Your task to perform on an android device: Search for seafood restaurants on Google Maps Image 0: 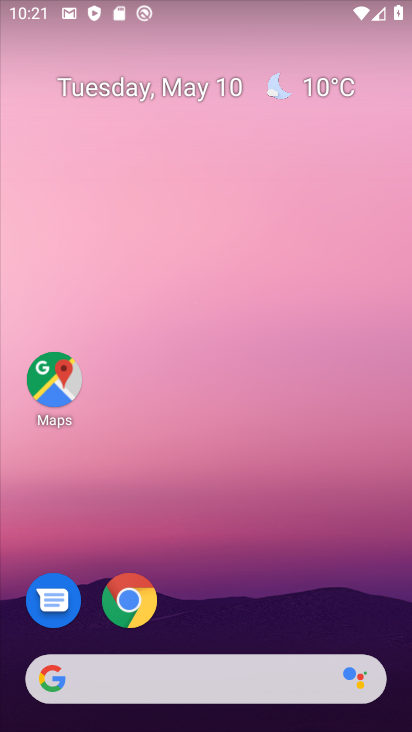
Step 0: drag from (230, 544) to (231, 5)
Your task to perform on an android device: Search for seafood restaurants on Google Maps Image 1: 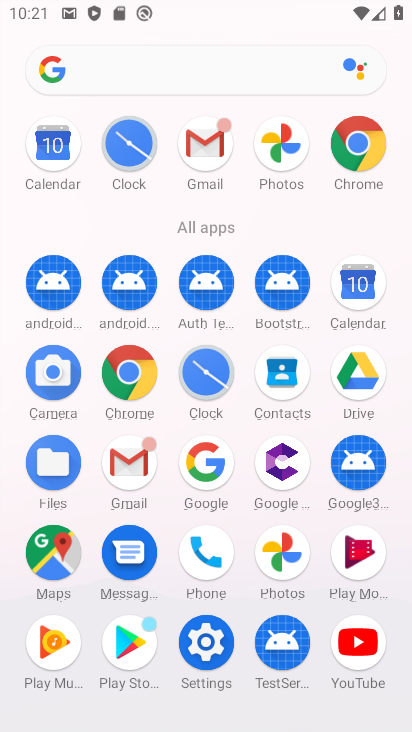
Step 1: click (50, 549)
Your task to perform on an android device: Search for seafood restaurants on Google Maps Image 2: 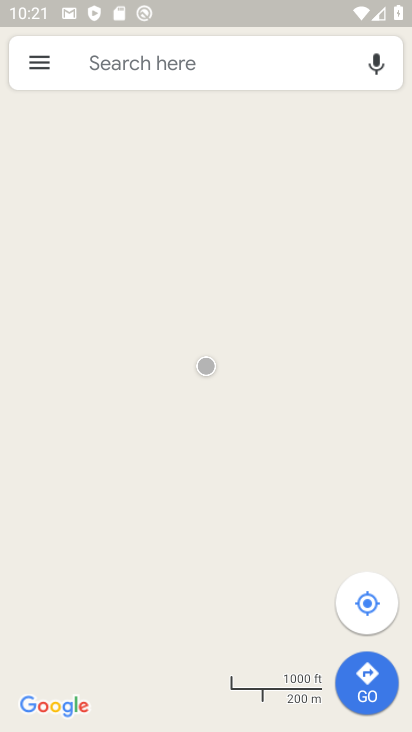
Step 2: click (224, 51)
Your task to perform on an android device: Search for seafood restaurants on Google Maps Image 3: 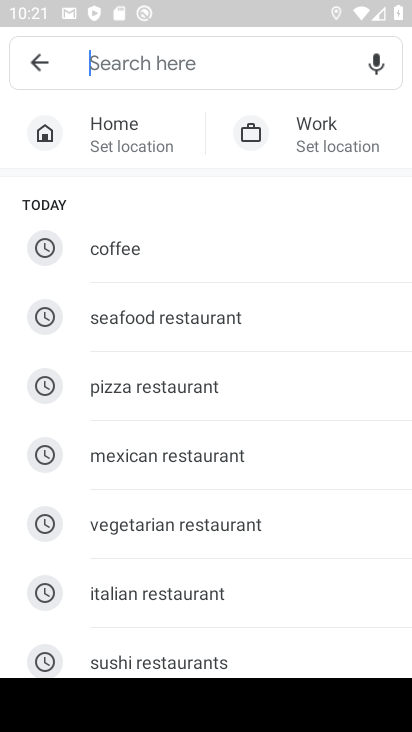
Step 3: type "seafood restaurants"
Your task to perform on an android device: Search for seafood restaurants on Google Maps Image 4: 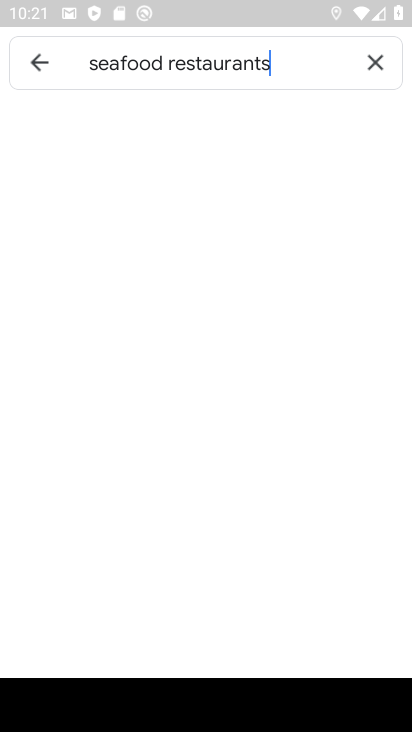
Step 4: type ""
Your task to perform on an android device: Search for seafood restaurants on Google Maps Image 5: 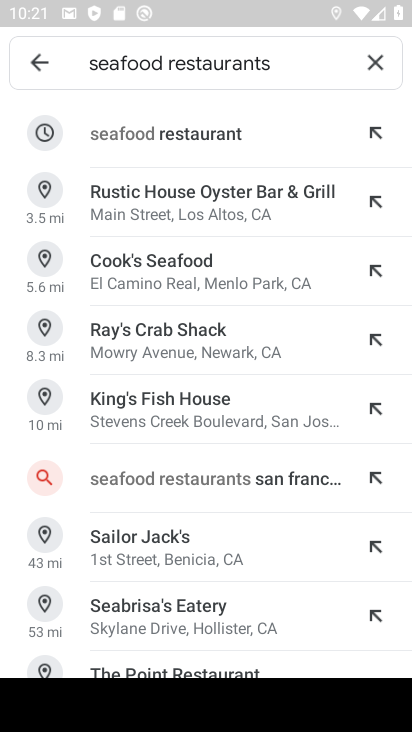
Step 5: click (164, 134)
Your task to perform on an android device: Search for seafood restaurants on Google Maps Image 6: 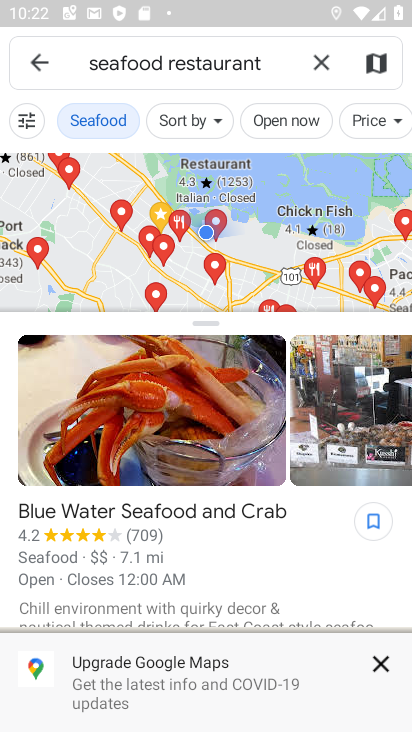
Step 6: task complete